Your task to perform on an android device: What's on the menu at Pizza Hut? Image 0: 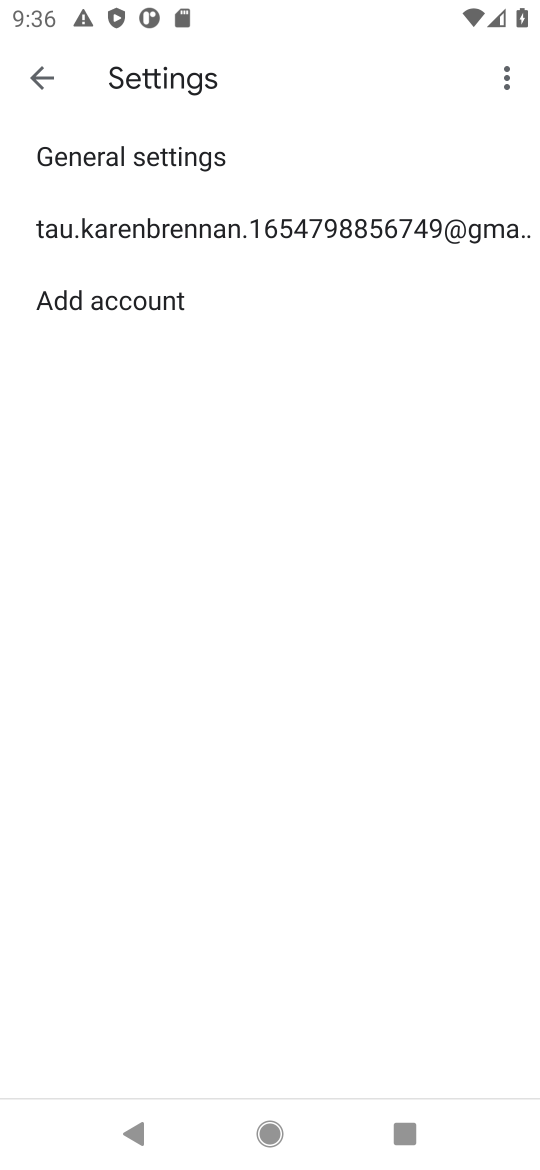
Step 0: press home button
Your task to perform on an android device: What's on the menu at Pizza Hut? Image 1: 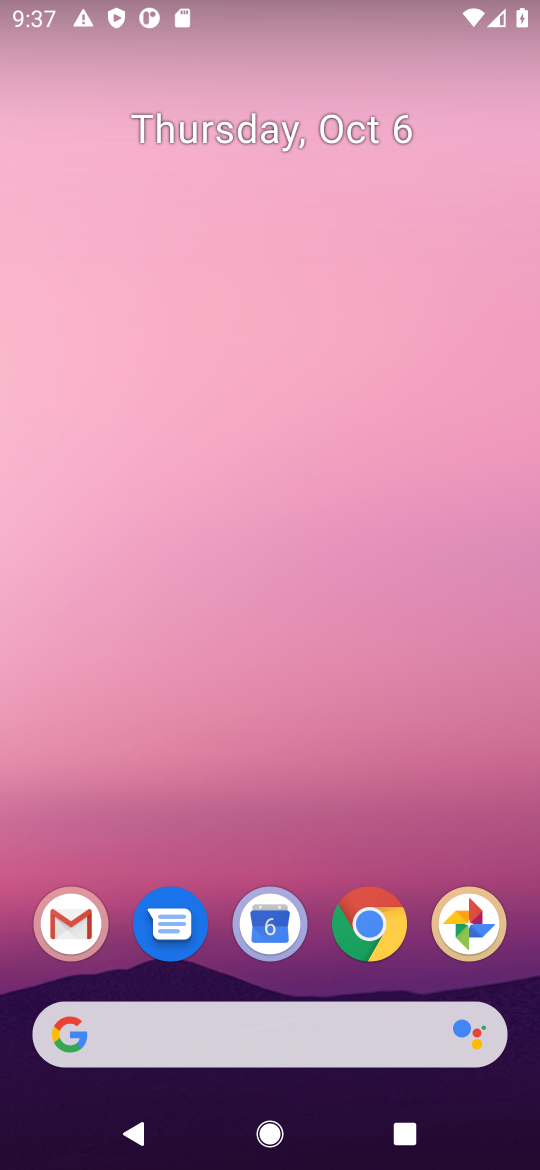
Step 1: click (364, 935)
Your task to perform on an android device: What's on the menu at Pizza Hut? Image 2: 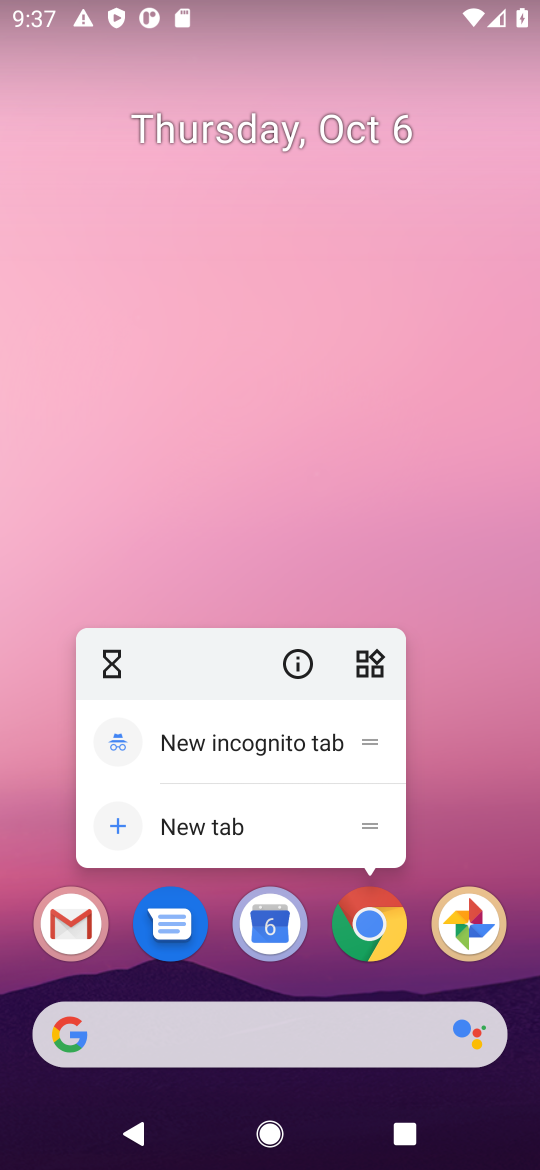
Step 2: click (361, 914)
Your task to perform on an android device: What's on the menu at Pizza Hut? Image 3: 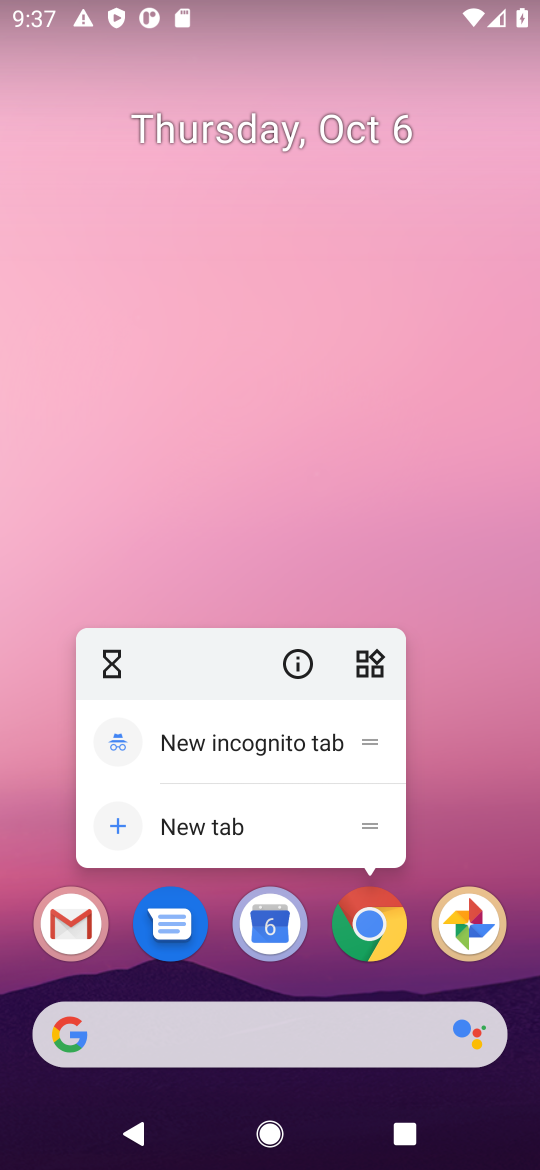
Step 3: click (361, 914)
Your task to perform on an android device: What's on the menu at Pizza Hut? Image 4: 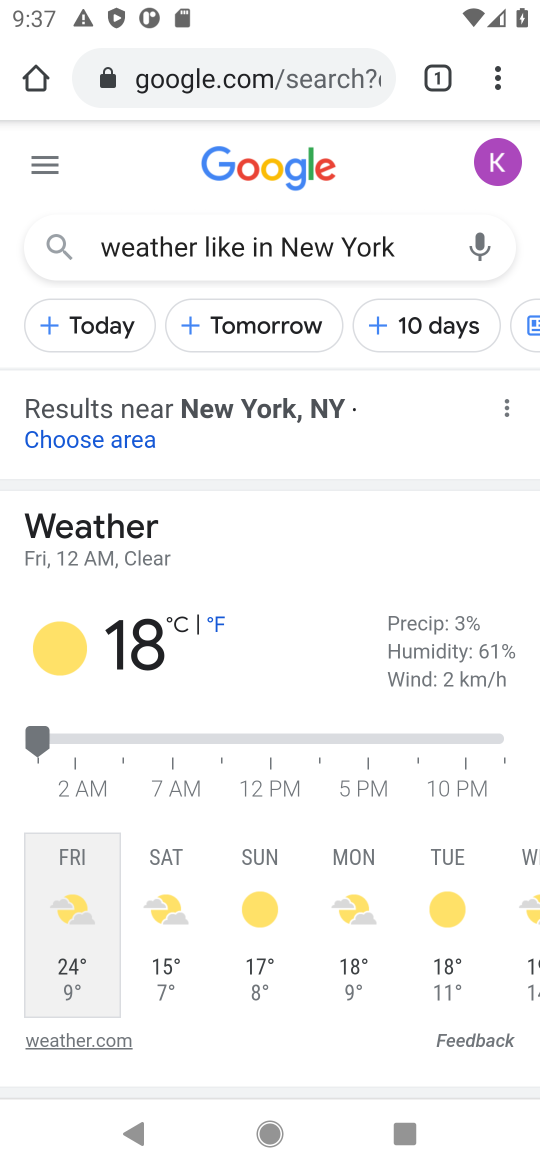
Step 4: click (306, 81)
Your task to perform on an android device: What's on the menu at Pizza Hut? Image 5: 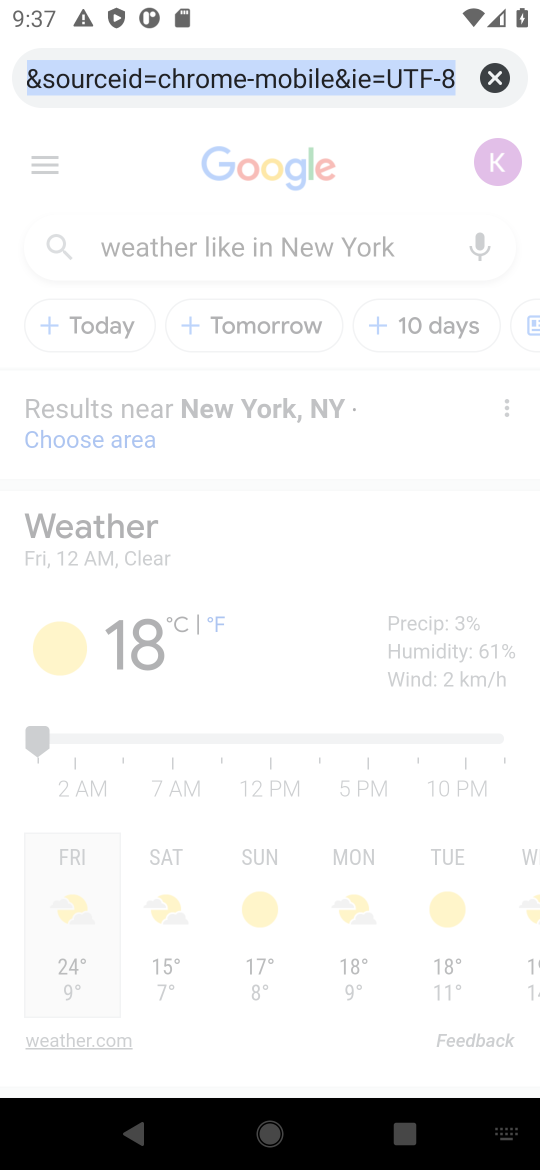
Step 5: click (315, 78)
Your task to perform on an android device: What's on the menu at Pizza Hut? Image 6: 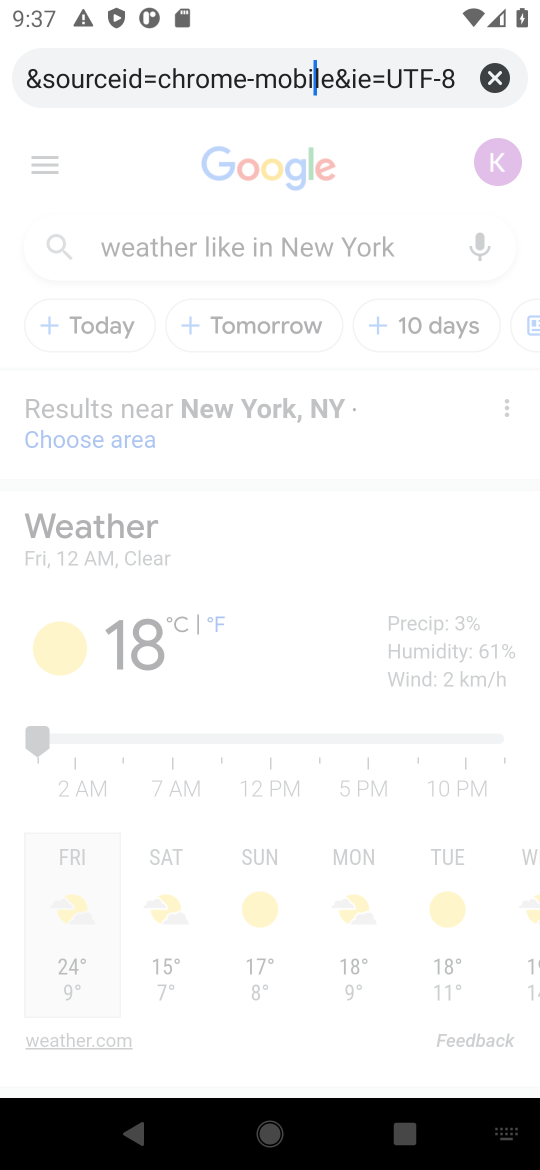
Step 6: click (493, 82)
Your task to perform on an android device: What's on the menu at Pizza Hut? Image 7: 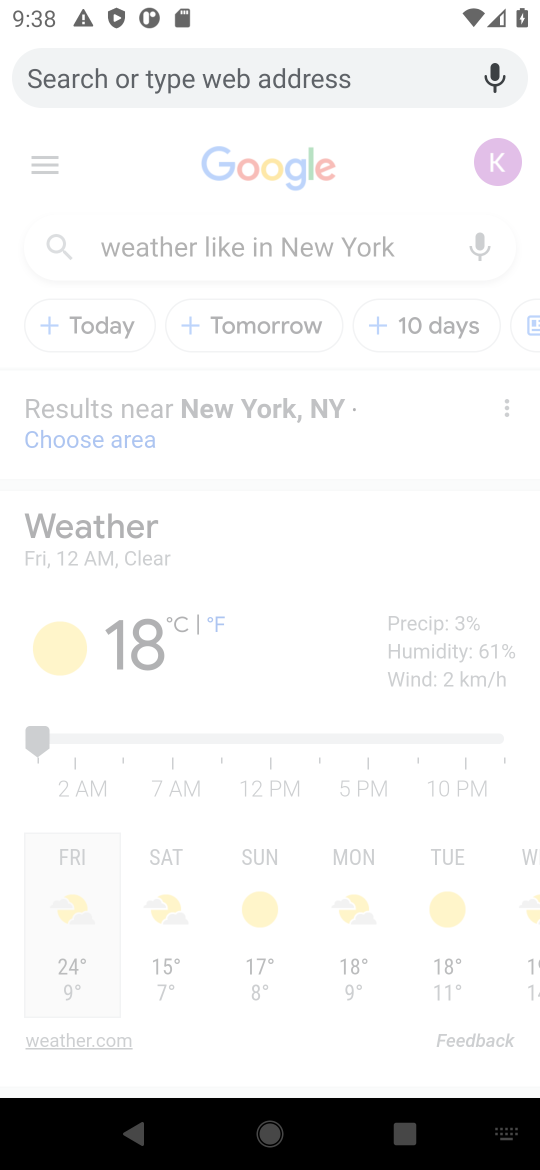
Step 7: click (395, 72)
Your task to perform on an android device: What's on the menu at Pizza Hut? Image 8: 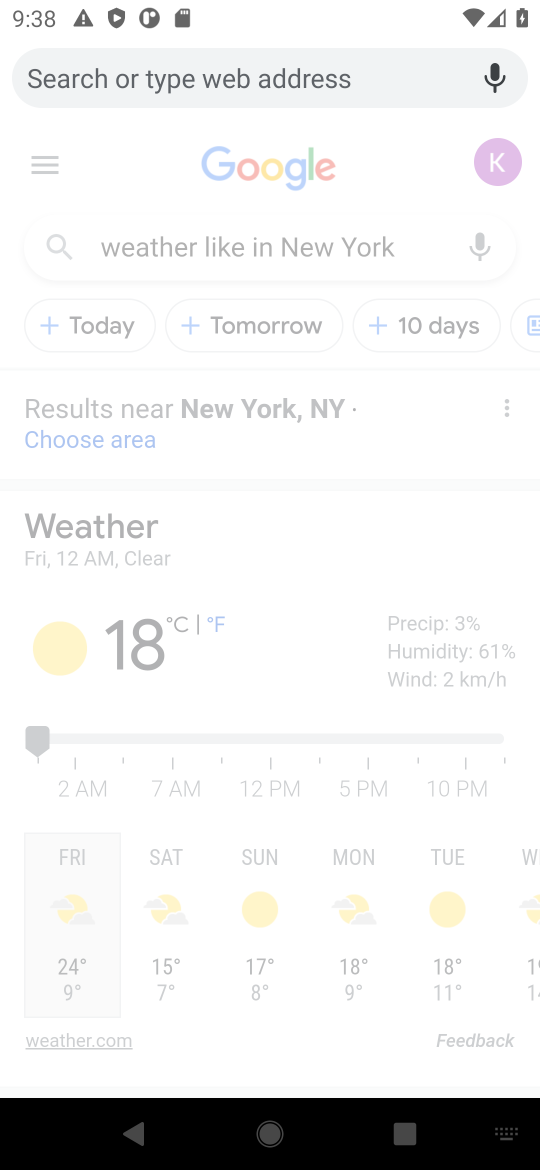
Step 8: click (494, 78)
Your task to perform on an android device: What's on the menu at Pizza Hut? Image 9: 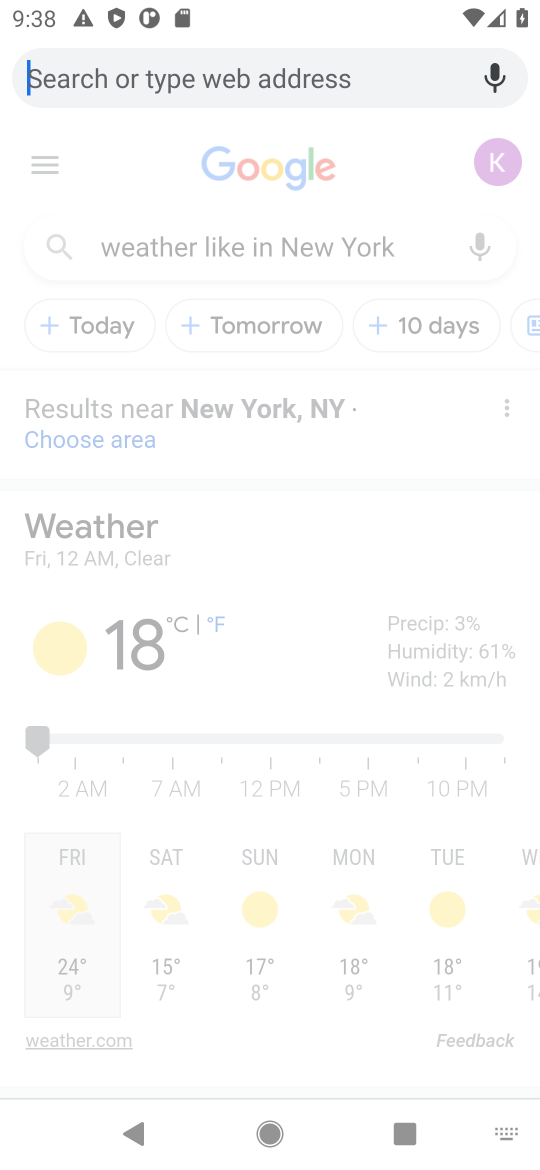
Step 9: drag from (455, 63) to (117, 64)
Your task to perform on an android device: What's on the menu at Pizza Hut? Image 10: 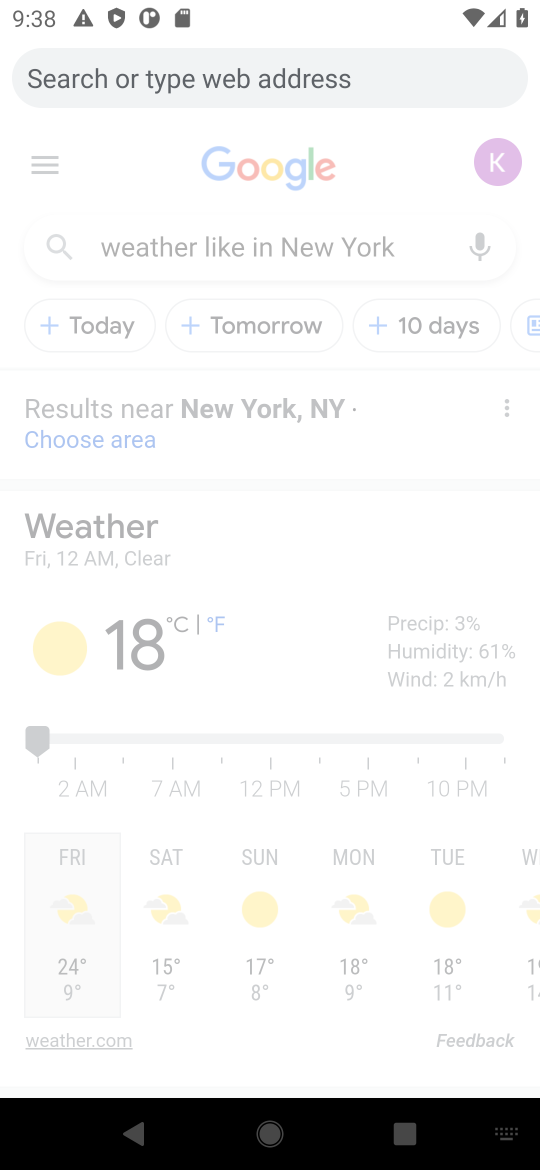
Step 10: type "menu at Pizza Hut"
Your task to perform on an android device: What's on the menu at Pizza Hut? Image 11: 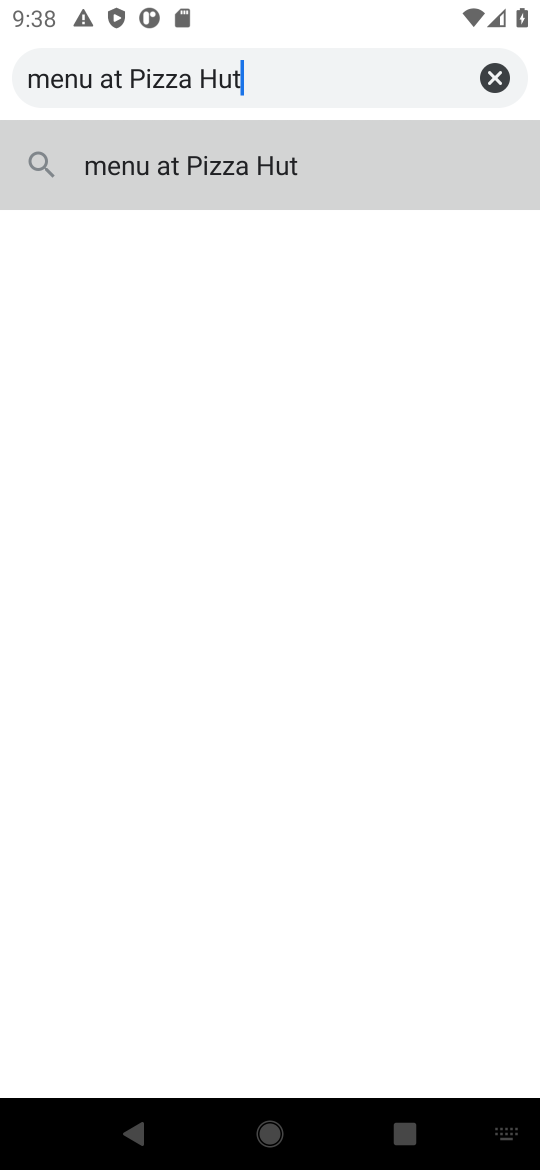
Step 11: click (181, 172)
Your task to perform on an android device: What's on the menu at Pizza Hut? Image 12: 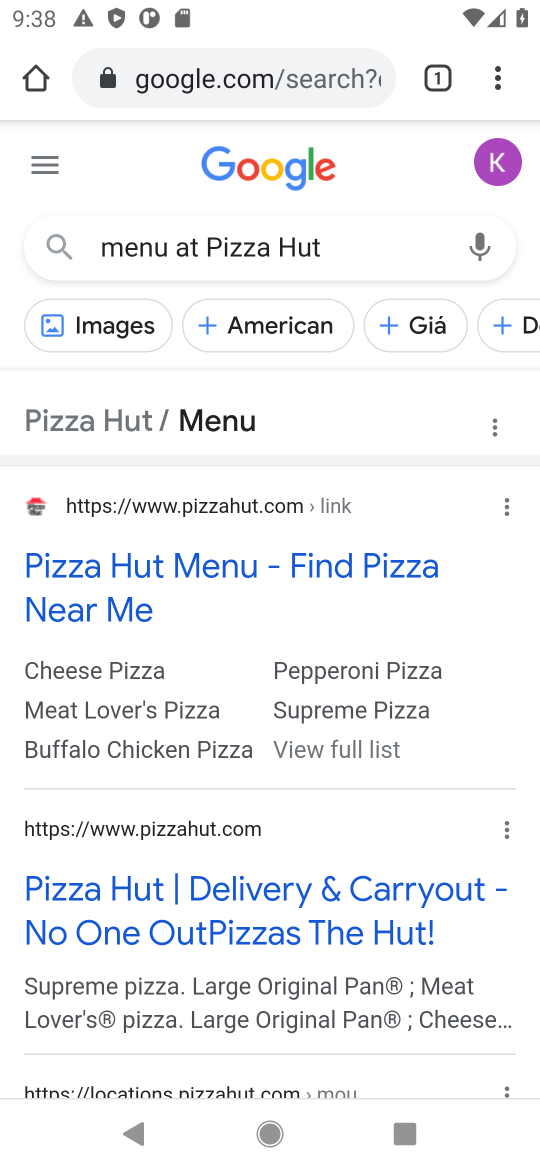
Step 12: drag from (192, 909) to (317, 676)
Your task to perform on an android device: What's on the menu at Pizza Hut? Image 13: 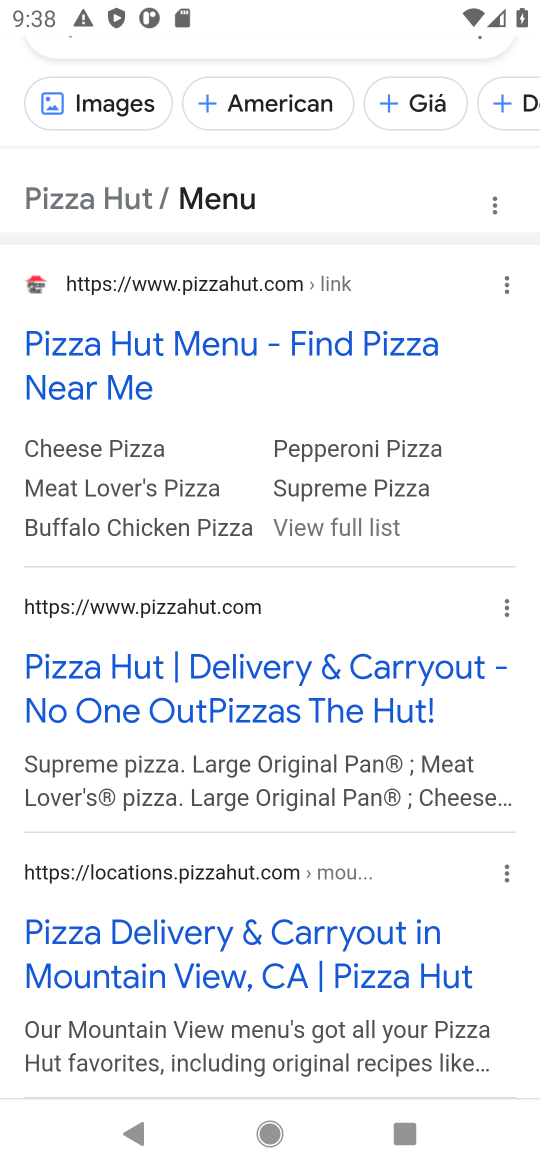
Step 13: click (178, 338)
Your task to perform on an android device: What's on the menu at Pizza Hut? Image 14: 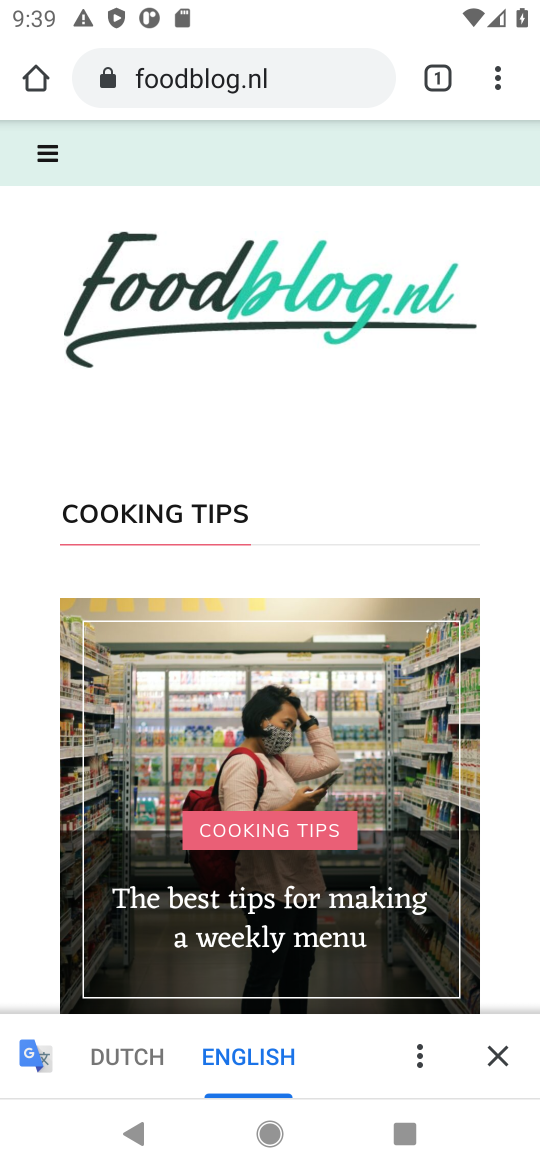
Step 14: drag from (199, 753) to (536, 156)
Your task to perform on an android device: What's on the menu at Pizza Hut? Image 15: 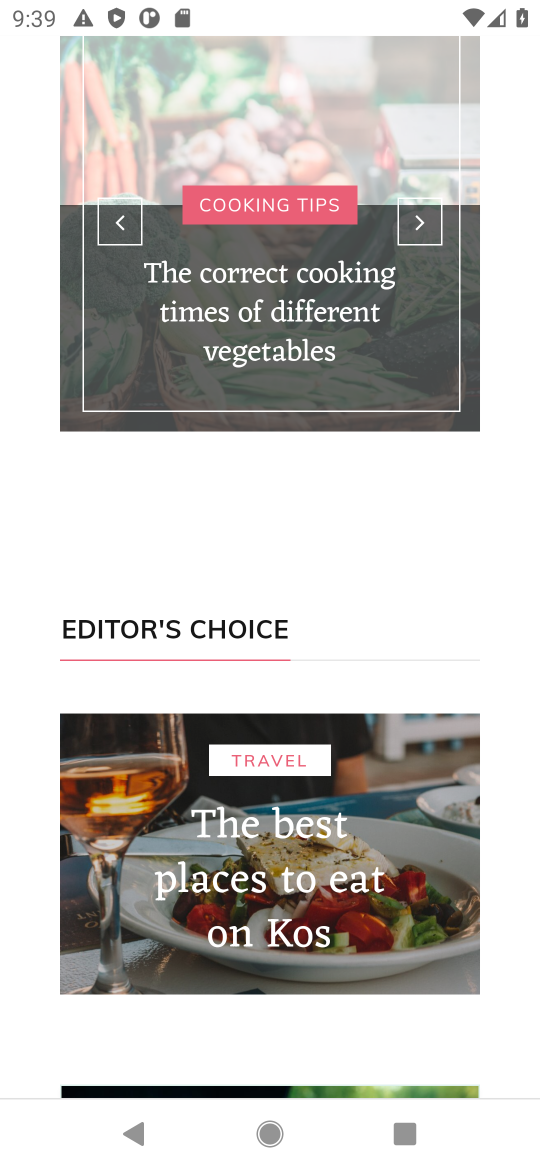
Step 15: drag from (317, 557) to (275, 939)
Your task to perform on an android device: What's on the menu at Pizza Hut? Image 16: 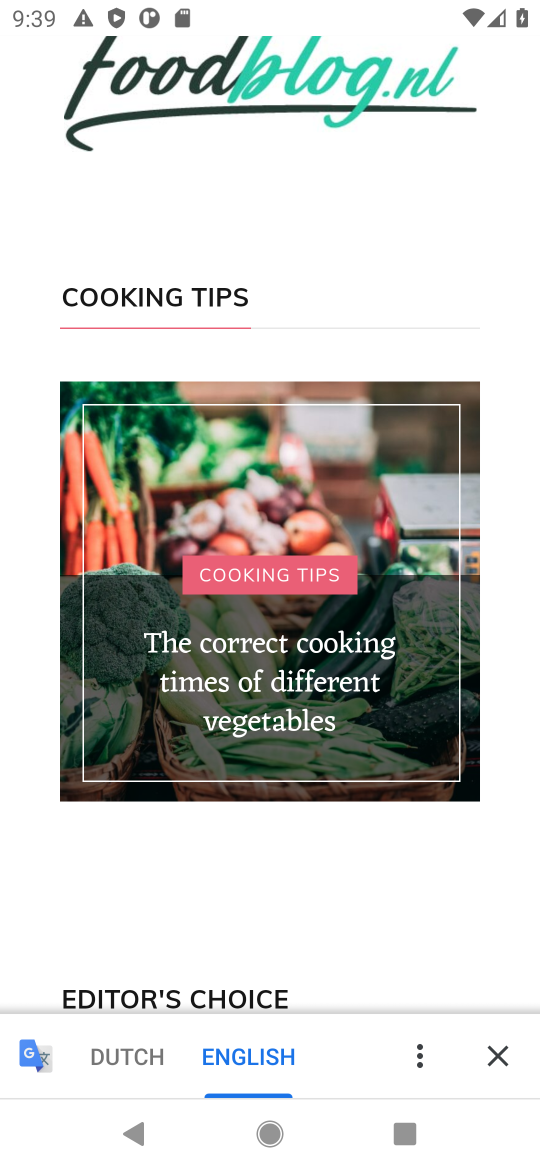
Step 16: drag from (115, 316) to (182, 828)
Your task to perform on an android device: What's on the menu at Pizza Hut? Image 17: 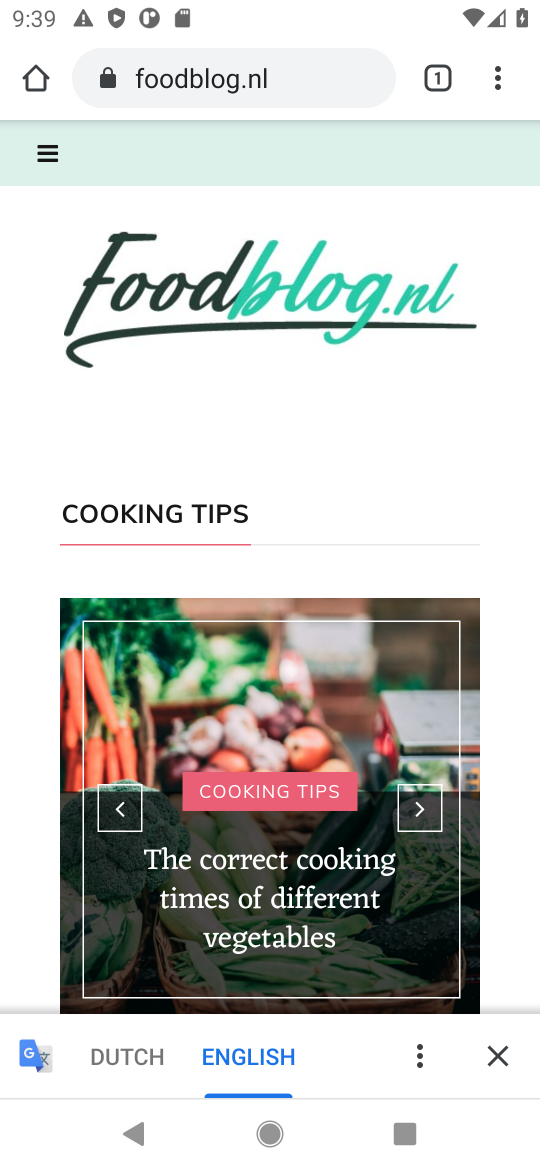
Step 17: press back button
Your task to perform on an android device: What's on the menu at Pizza Hut? Image 18: 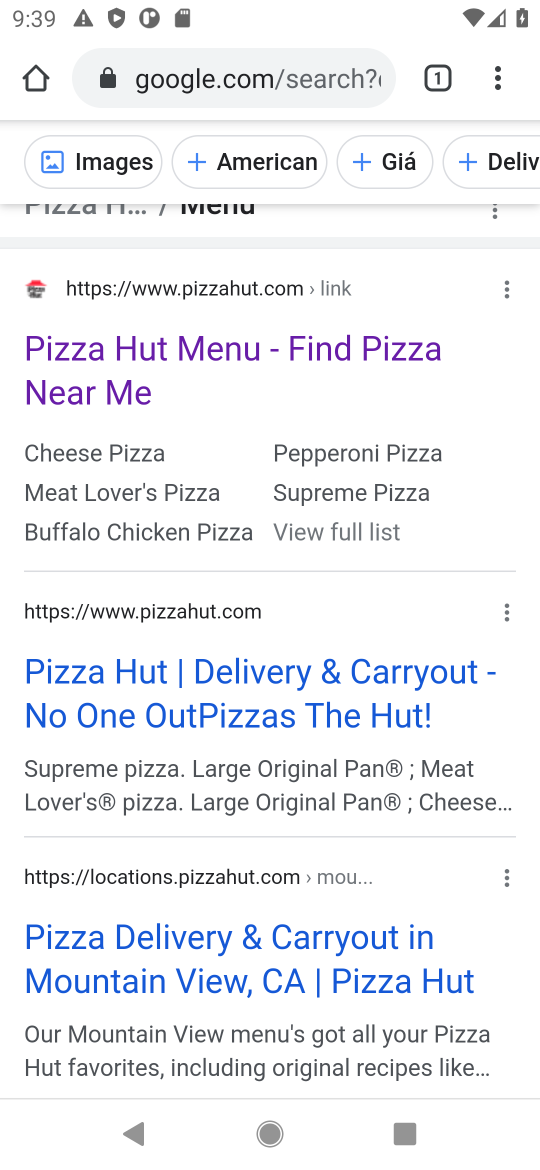
Step 18: drag from (222, 907) to (427, 244)
Your task to perform on an android device: What's on the menu at Pizza Hut? Image 19: 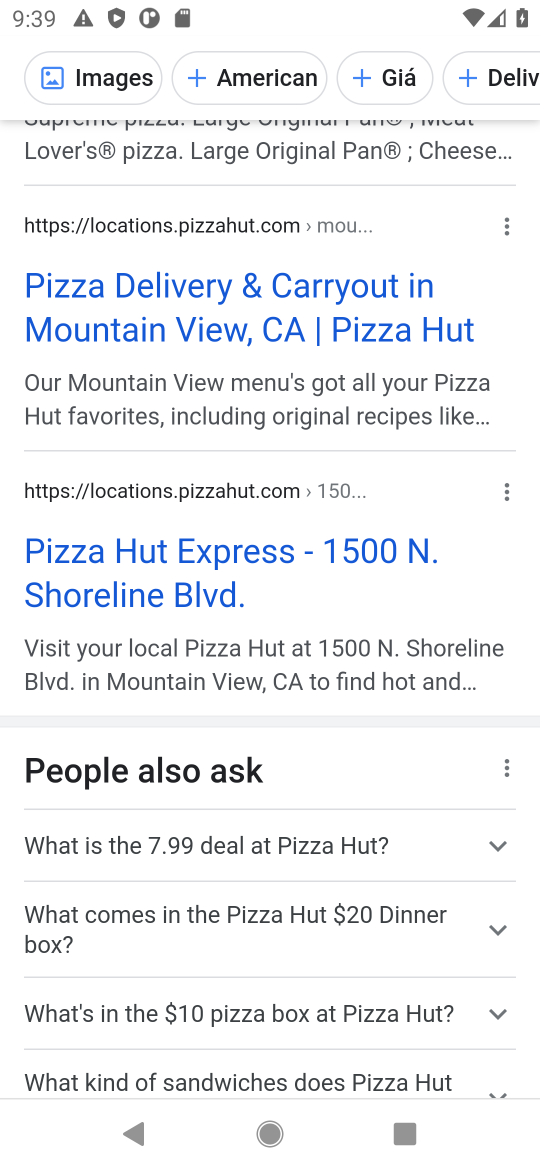
Step 19: drag from (273, 982) to (430, 378)
Your task to perform on an android device: What's on the menu at Pizza Hut? Image 20: 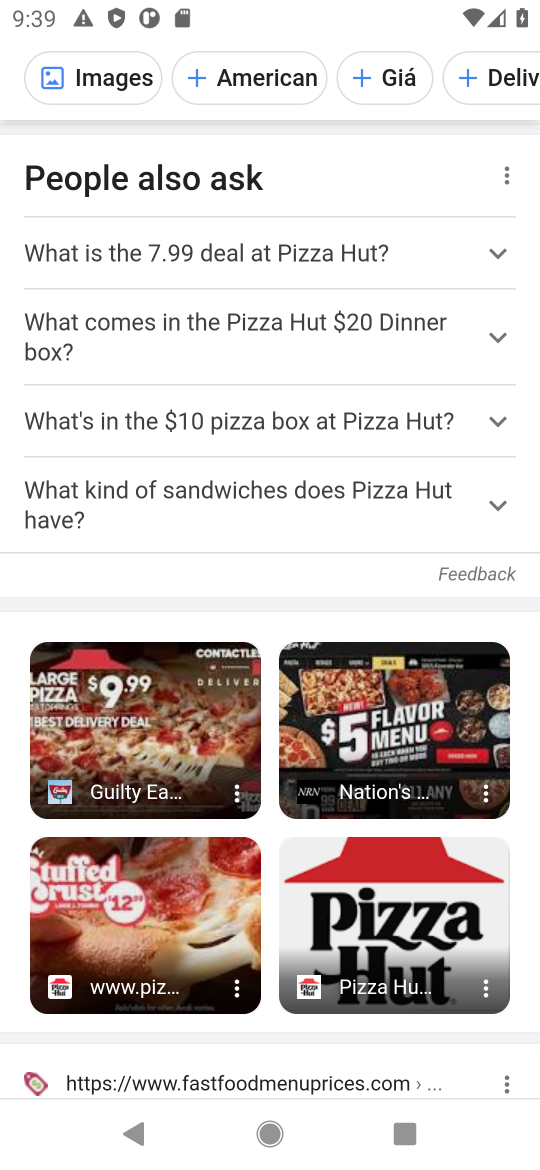
Step 20: drag from (265, 851) to (326, 638)
Your task to perform on an android device: What's on the menu at Pizza Hut? Image 21: 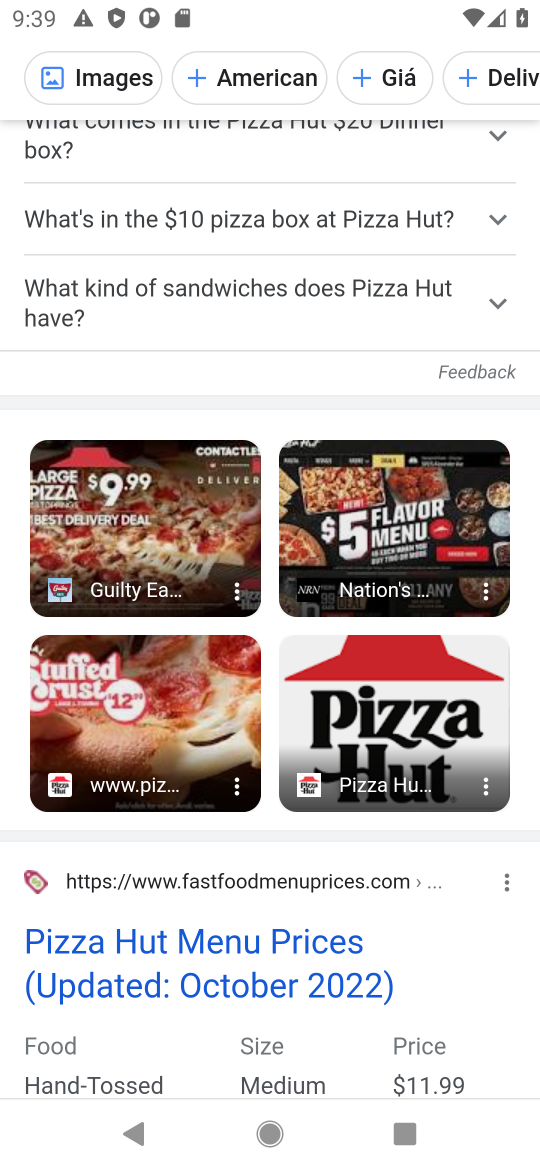
Step 21: click (192, 933)
Your task to perform on an android device: What's on the menu at Pizza Hut? Image 22: 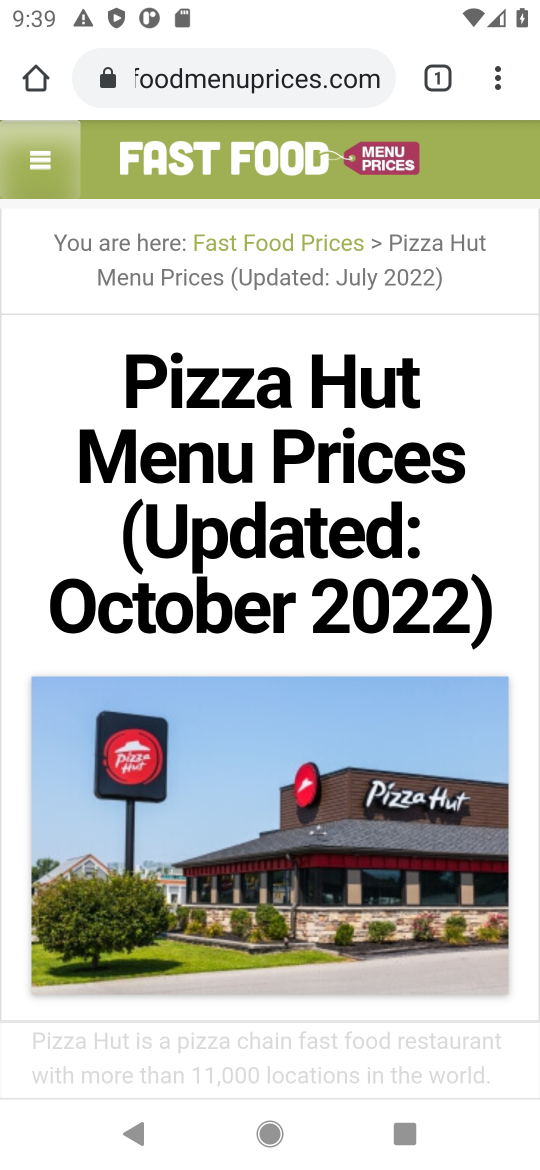
Step 22: drag from (244, 954) to (347, 454)
Your task to perform on an android device: What's on the menu at Pizza Hut? Image 23: 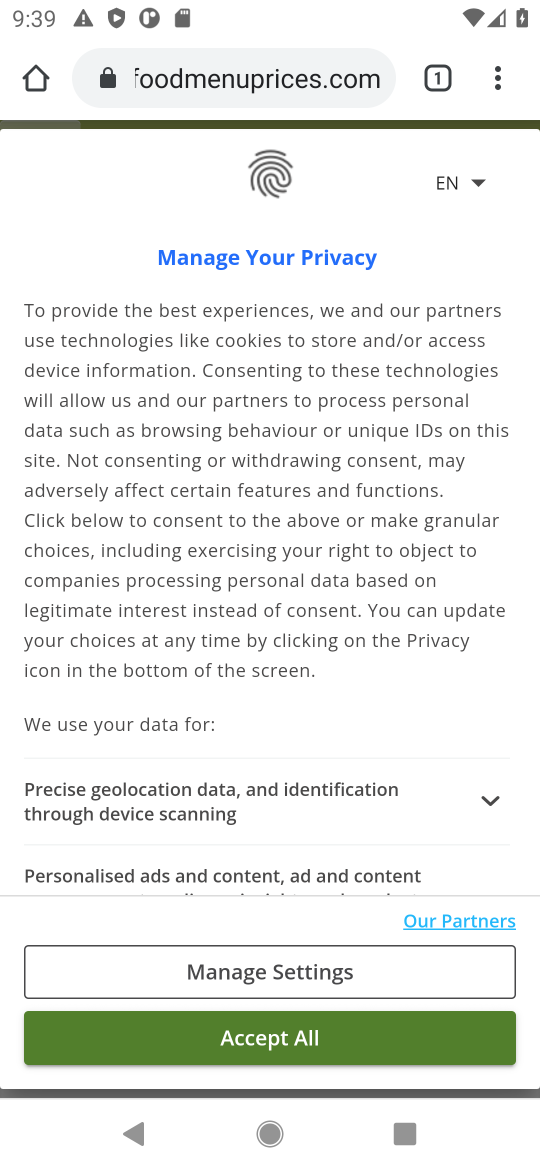
Step 23: click (277, 1027)
Your task to perform on an android device: What's on the menu at Pizza Hut? Image 24: 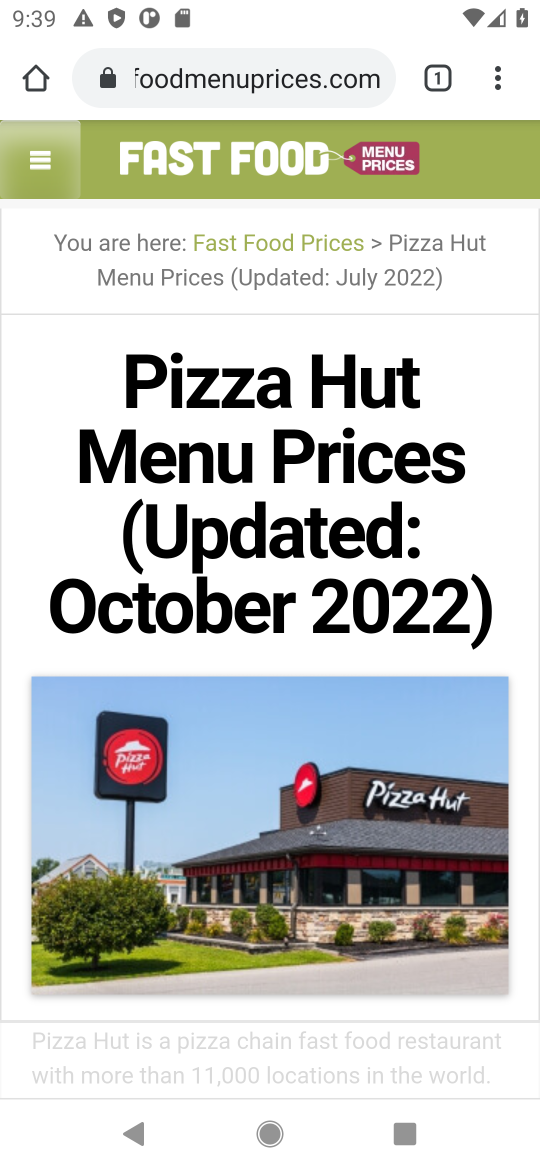
Step 24: drag from (265, 1011) to (401, 217)
Your task to perform on an android device: What's on the menu at Pizza Hut? Image 25: 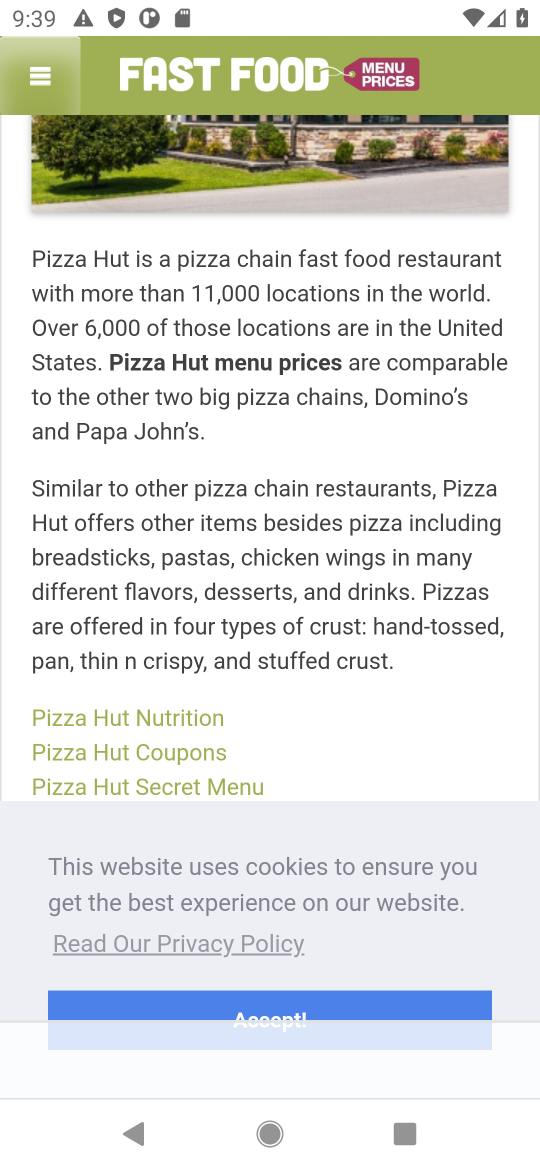
Step 25: drag from (297, 725) to (404, 117)
Your task to perform on an android device: What's on the menu at Pizza Hut? Image 26: 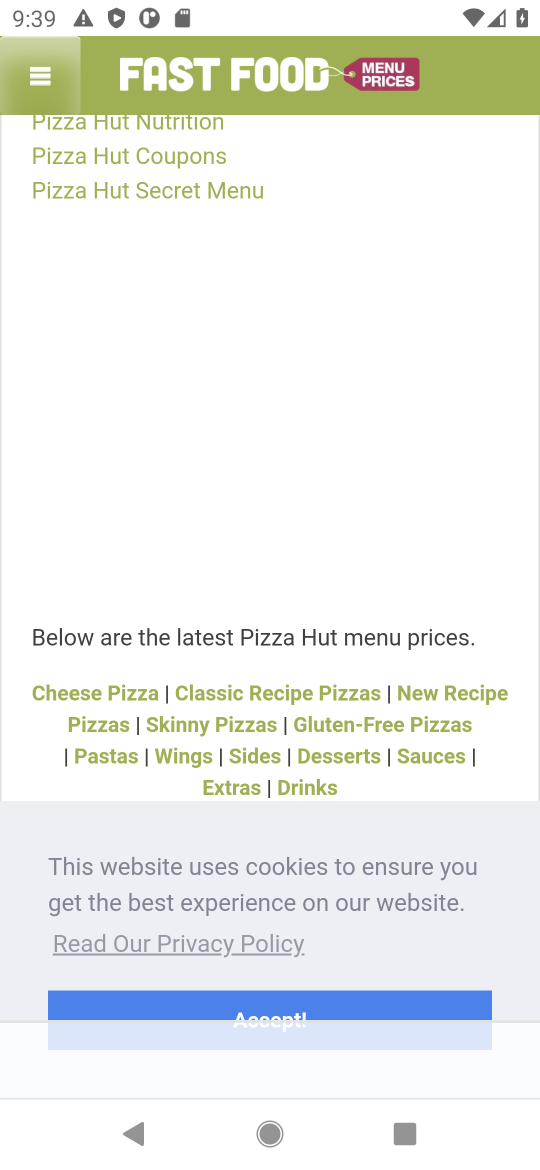
Step 26: click (276, 1013)
Your task to perform on an android device: What's on the menu at Pizza Hut? Image 27: 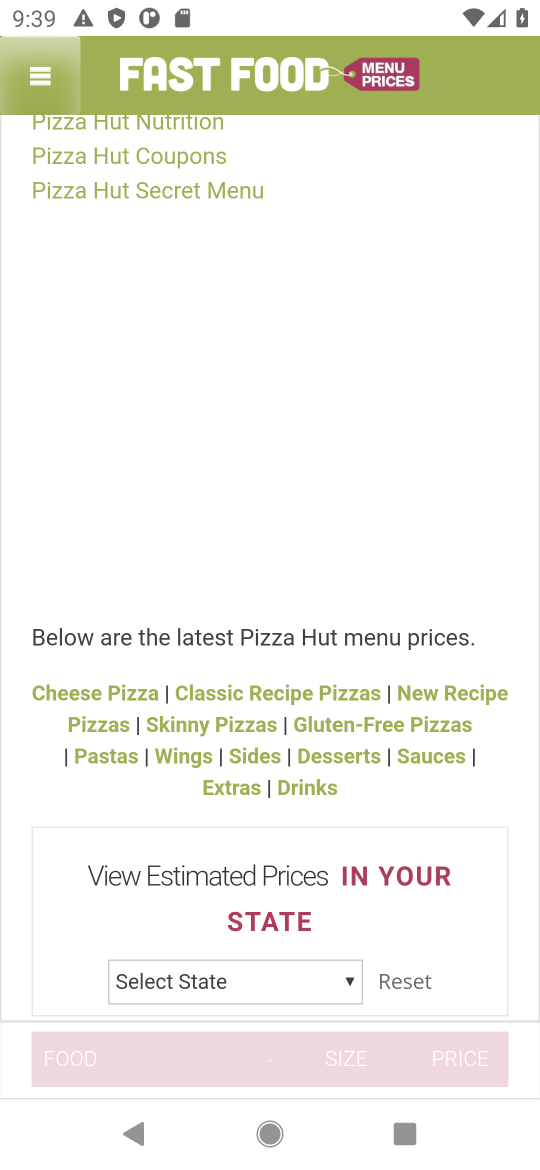
Step 27: task complete